Your task to perform on an android device: turn on showing notifications on the lock screen Image 0: 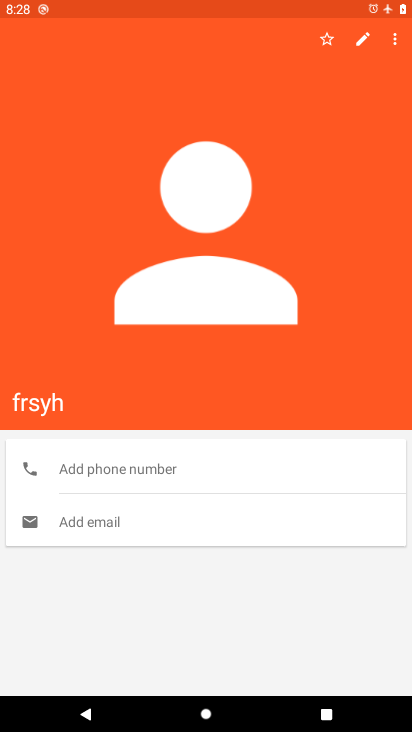
Step 0: press home button
Your task to perform on an android device: turn on showing notifications on the lock screen Image 1: 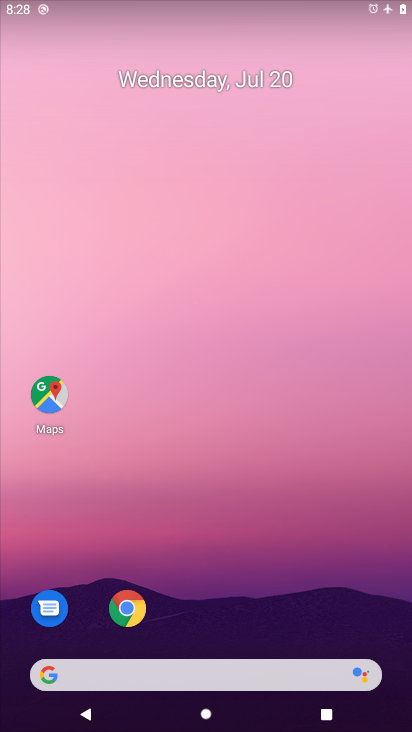
Step 1: drag from (186, 638) to (316, 129)
Your task to perform on an android device: turn on showing notifications on the lock screen Image 2: 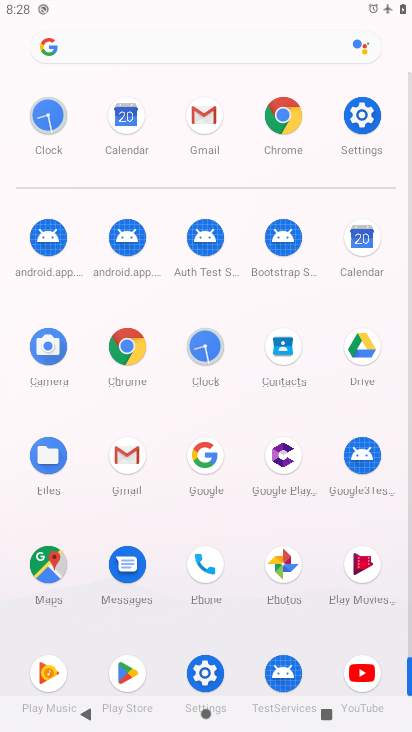
Step 2: click (371, 123)
Your task to perform on an android device: turn on showing notifications on the lock screen Image 3: 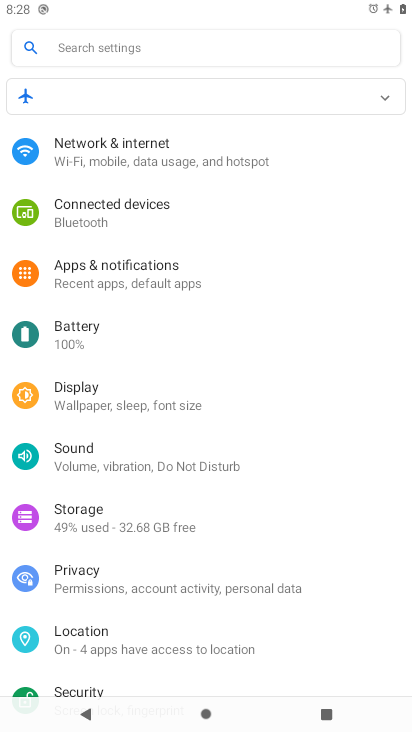
Step 3: click (135, 280)
Your task to perform on an android device: turn on showing notifications on the lock screen Image 4: 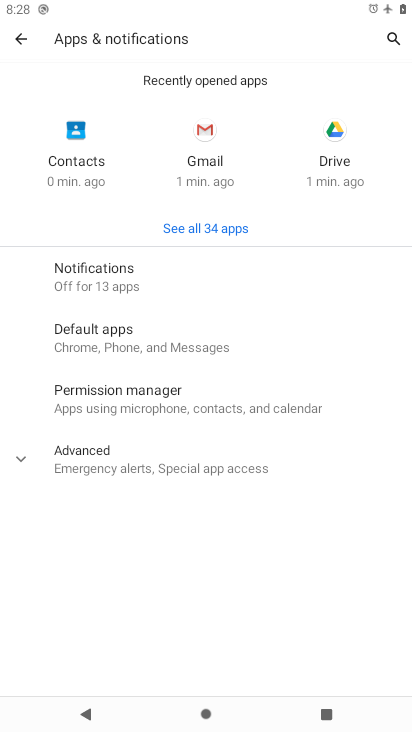
Step 4: click (135, 280)
Your task to perform on an android device: turn on showing notifications on the lock screen Image 5: 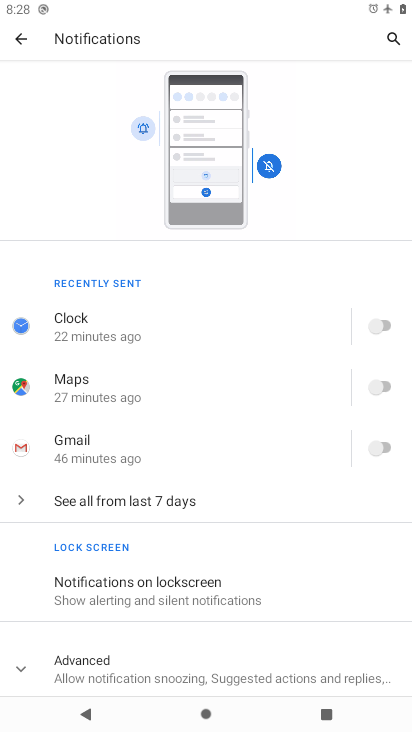
Step 5: click (153, 595)
Your task to perform on an android device: turn on showing notifications on the lock screen Image 6: 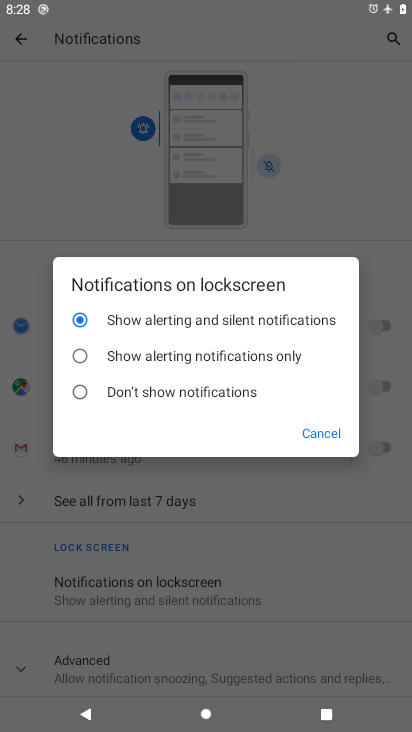
Step 6: task complete